Your task to perform on an android device: turn off priority inbox in the gmail app Image 0: 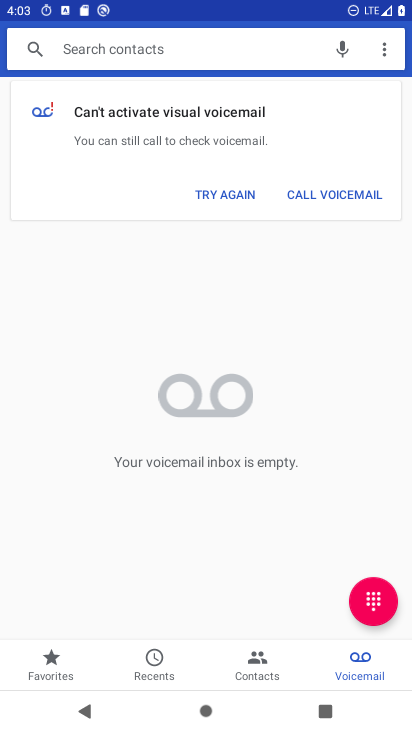
Step 0: press home button
Your task to perform on an android device: turn off priority inbox in the gmail app Image 1: 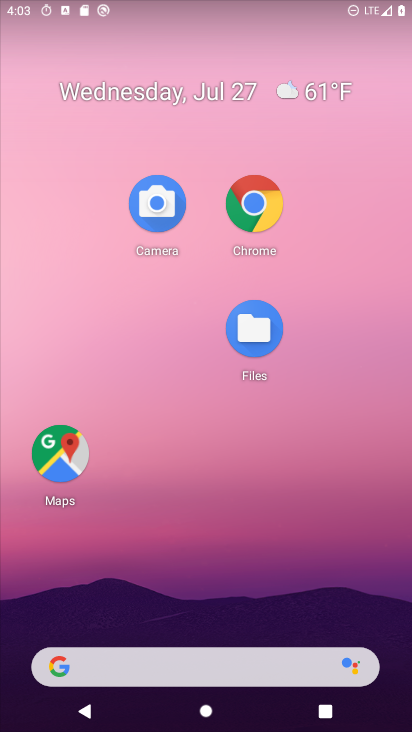
Step 1: drag from (199, 604) to (209, 81)
Your task to perform on an android device: turn off priority inbox in the gmail app Image 2: 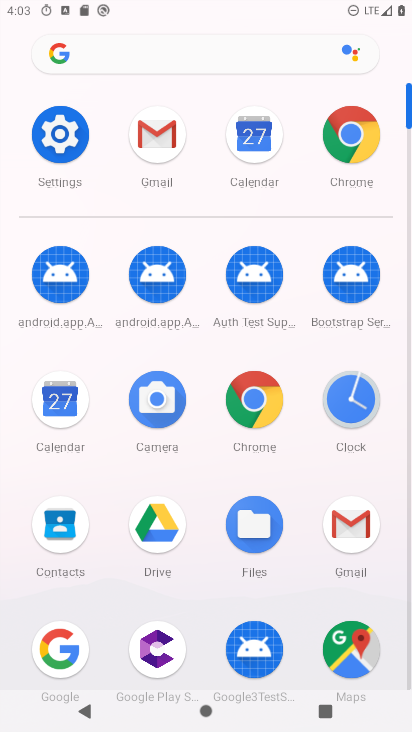
Step 2: click (153, 156)
Your task to perform on an android device: turn off priority inbox in the gmail app Image 3: 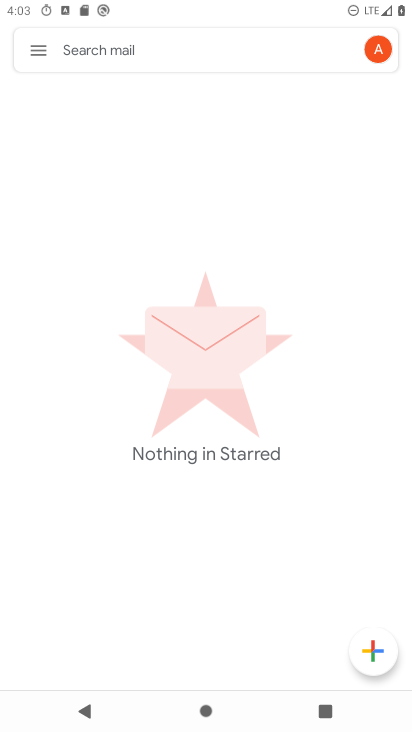
Step 3: click (49, 54)
Your task to perform on an android device: turn off priority inbox in the gmail app Image 4: 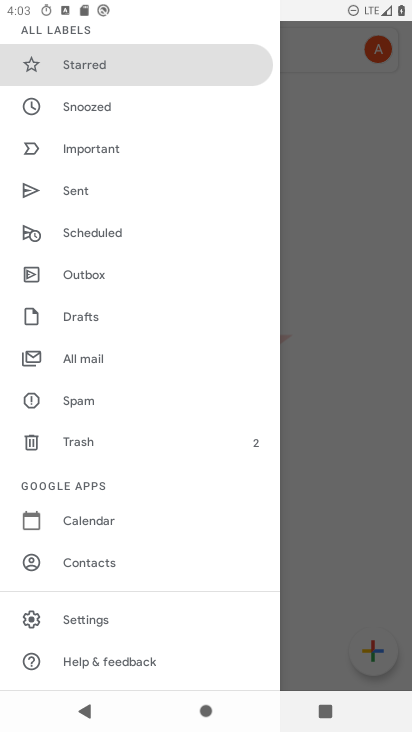
Step 4: click (135, 616)
Your task to perform on an android device: turn off priority inbox in the gmail app Image 5: 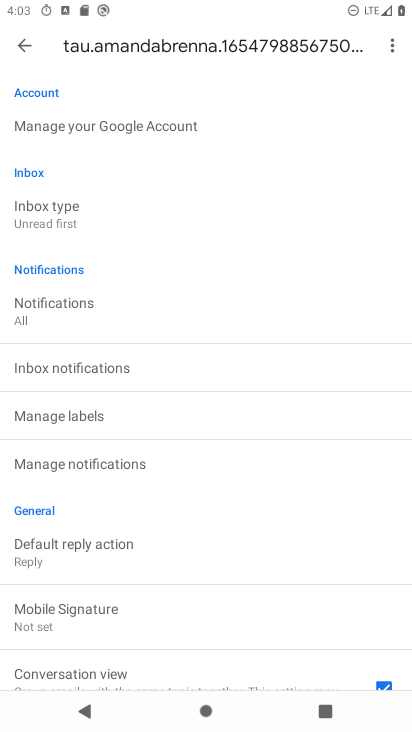
Step 5: click (102, 222)
Your task to perform on an android device: turn off priority inbox in the gmail app Image 6: 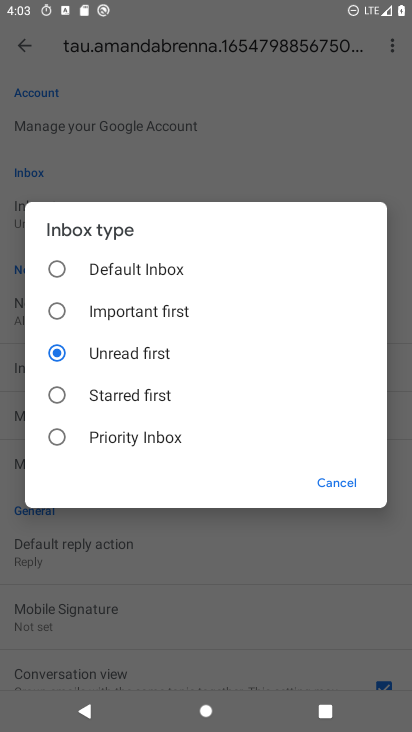
Step 6: click (119, 272)
Your task to perform on an android device: turn off priority inbox in the gmail app Image 7: 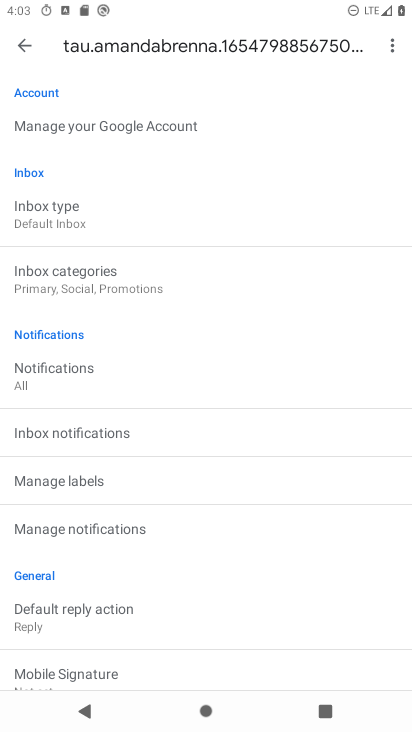
Step 7: task complete